Your task to perform on an android device: open wifi settings Image 0: 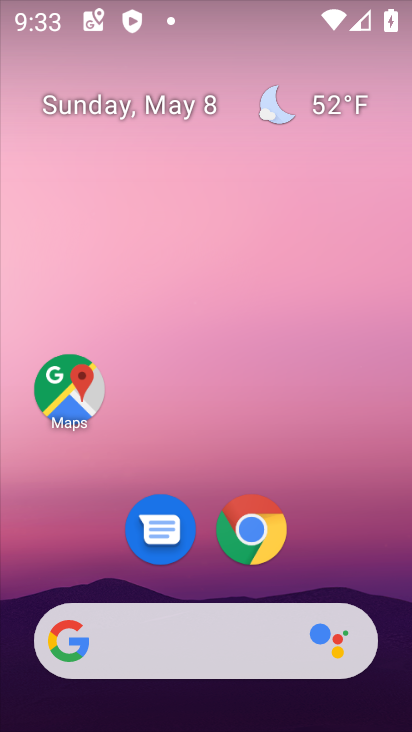
Step 0: drag from (375, 565) to (363, 156)
Your task to perform on an android device: open wifi settings Image 1: 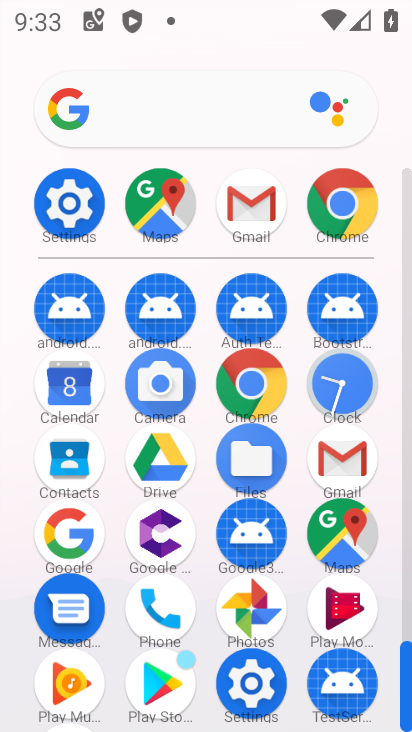
Step 1: drag from (208, 627) to (212, 385)
Your task to perform on an android device: open wifi settings Image 2: 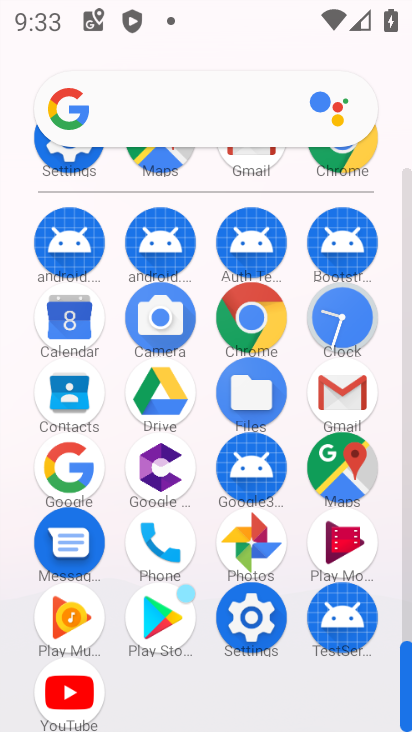
Step 2: click (254, 641)
Your task to perform on an android device: open wifi settings Image 3: 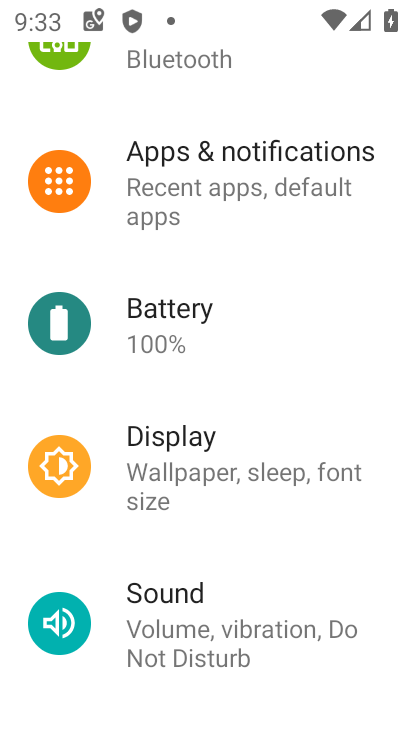
Step 3: drag from (319, 307) to (273, 607)
Your task to perform on an android device: open wifi settings Image 4: 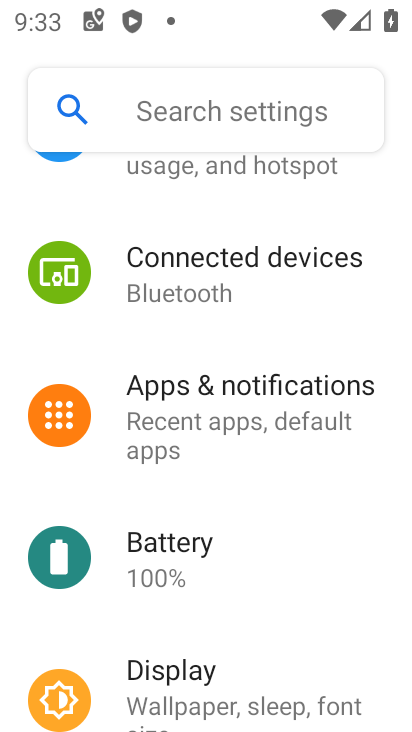
Step 4: drag from (306, 241) to (246, 526)
Your task to perform on an android device: open wifi settings Image 5: 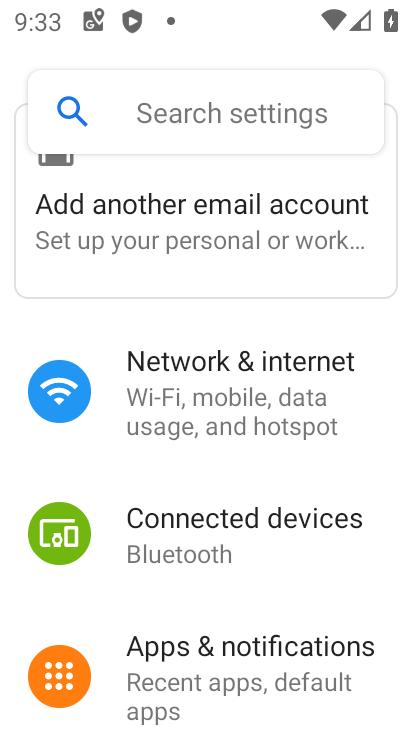
Step 5: click (259, 383)
Your task to perform on an android device: open wifi settings Image 6: 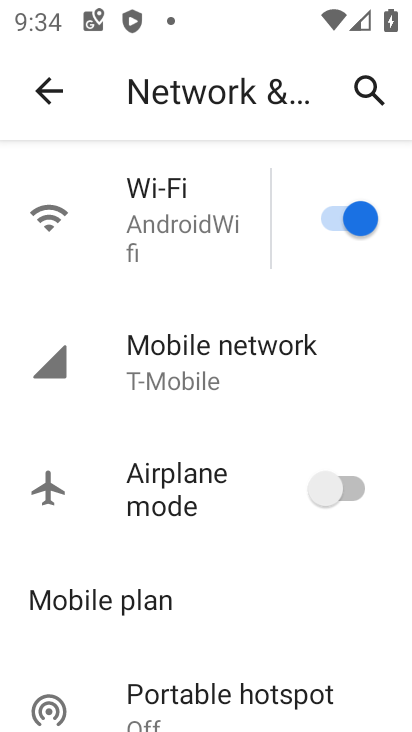
Step 6: click (182, 246)
Your task to perform on an android device: open wifi settings Image 7: 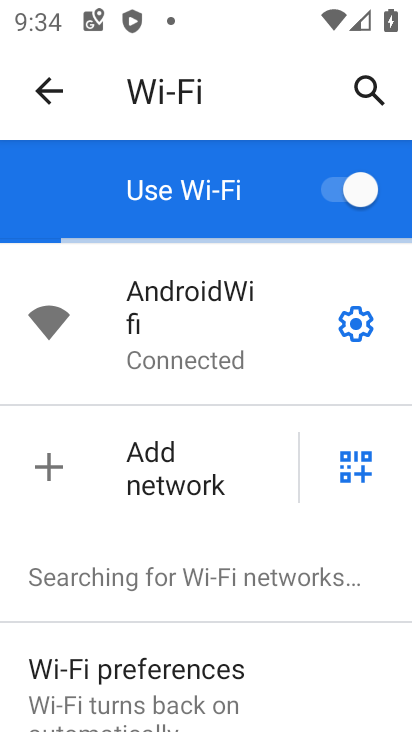
Step 7: click (357, 329)
Your task to perform on an android device: open wifi settings Image 8: 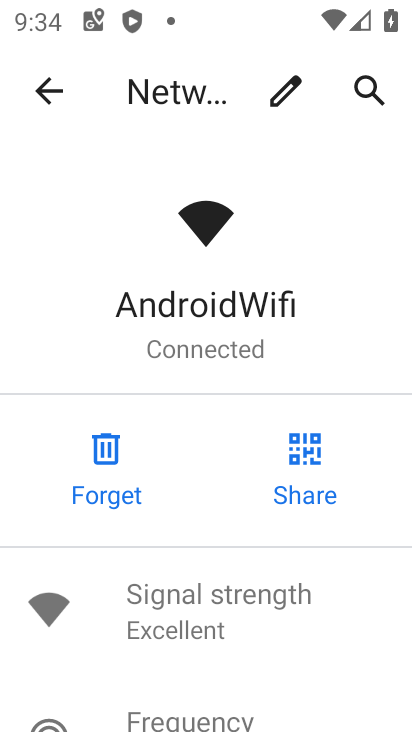
Step 8: task complete